Your task to perform on an android device: Go to battery settings Image 0: 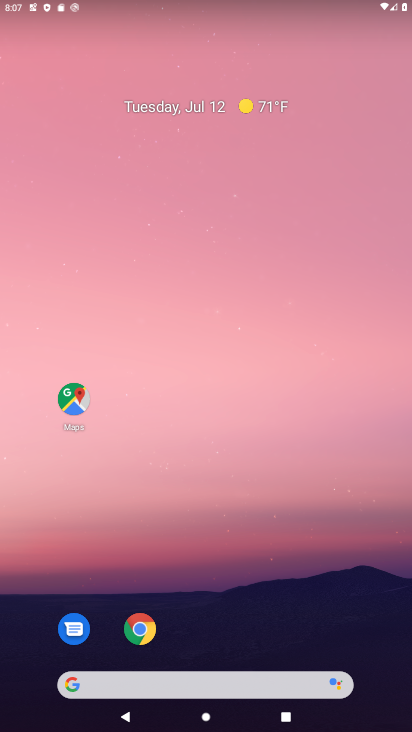
Step 0: drag from (391, 690) to (328, 171)
Your task to perform on an android device: Go to battery settings Image 1: 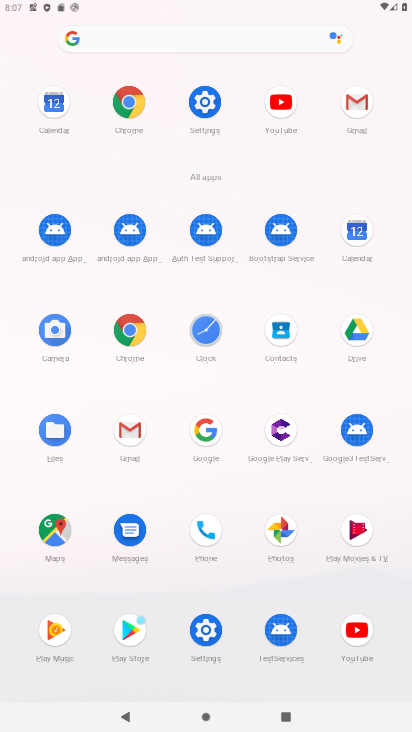
Step 1: click (210, 103)
Your task to perform on an android device: Go to battery settings Image 2: 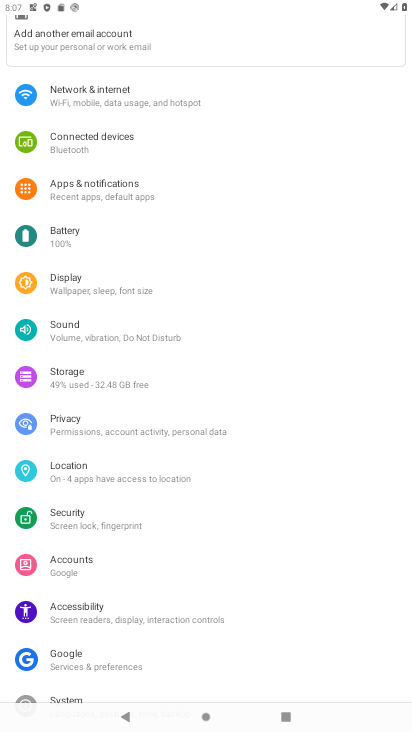
Step 2: click (53, 230)
Your task to perform on an android device: Go to battery settings Image 3: 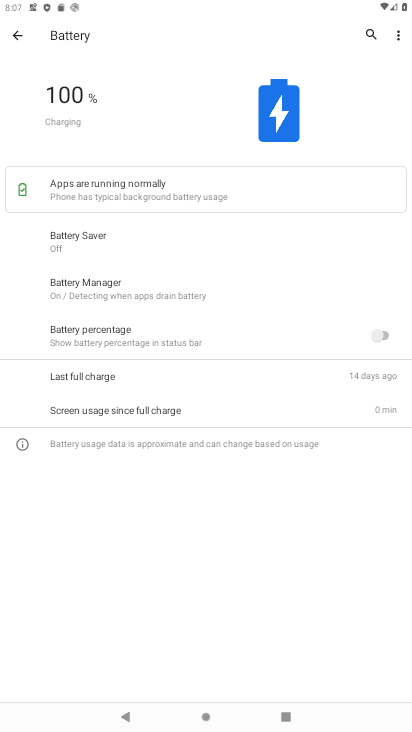
Step 3: click (399, 28)
Your task to perform on an android device: Go to battery settings Image 4: 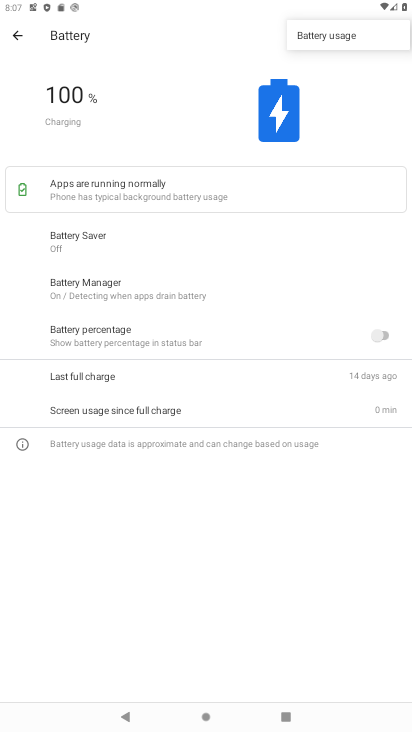
Step 4: click (343, 35)
Your task to perform on an android device: Go to battery settings Image 5: 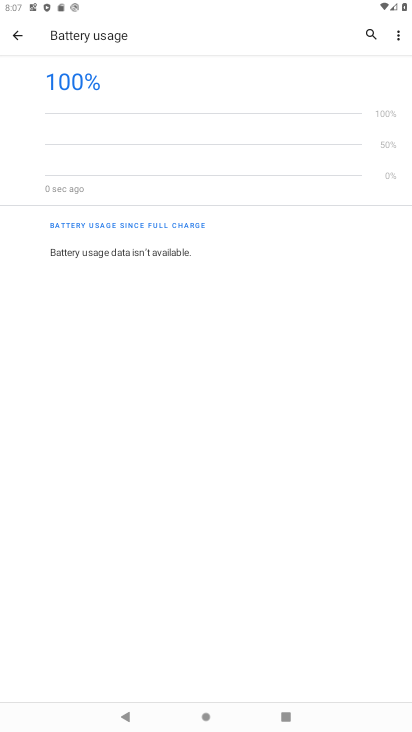
Step 5: click (16, 38)
Your task to perform on an android device: Go to battery settings Image 6: 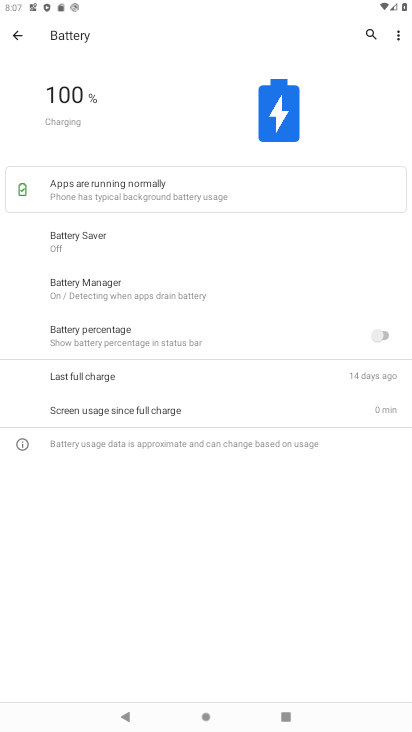
Step 6: task complete